Your task to perform on an android device: Search for custom made wallets on etsy.com Image 0: 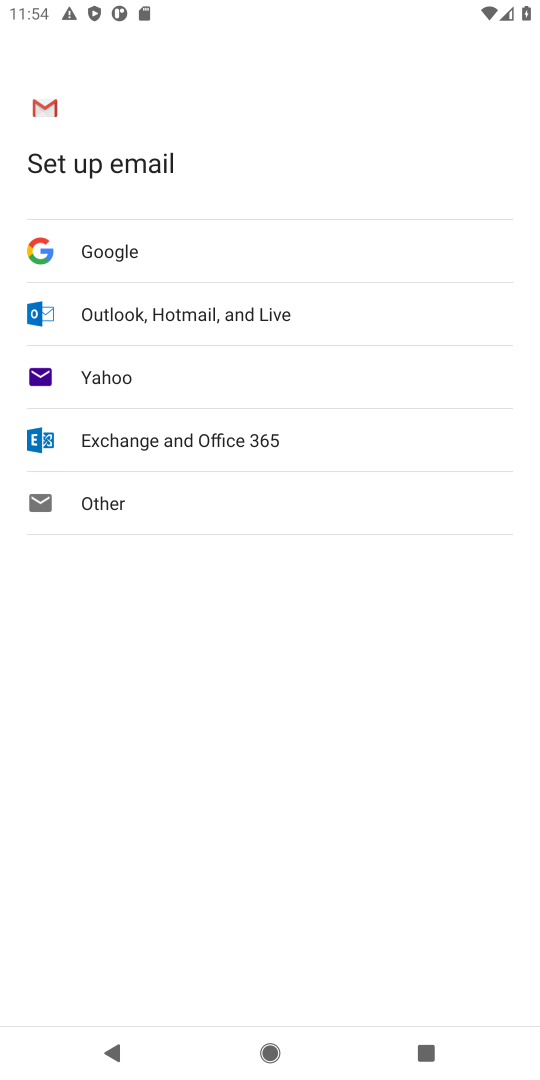
Step 0: press home button
Your task to perform on an android device: Search for custom made wallets on etsy.com Image 1: 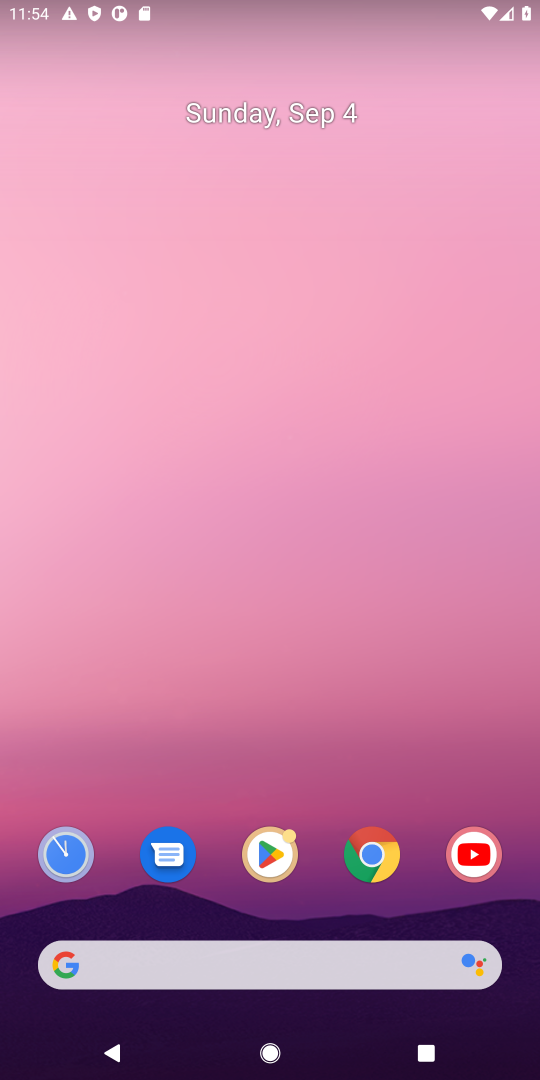
Step 1: click (343, 963)
Your task to perform on an android device: Search for custom made wallets on etsy.com Image 2: 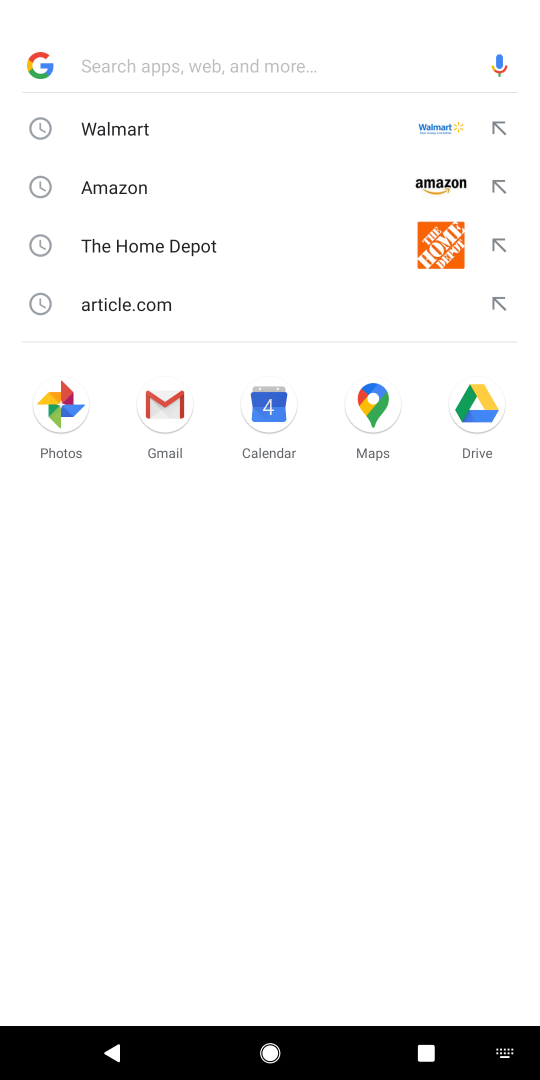
Step 2: press enter
Your task to perform on an android device: Search for custom made wallets on etsy.com Image 3: 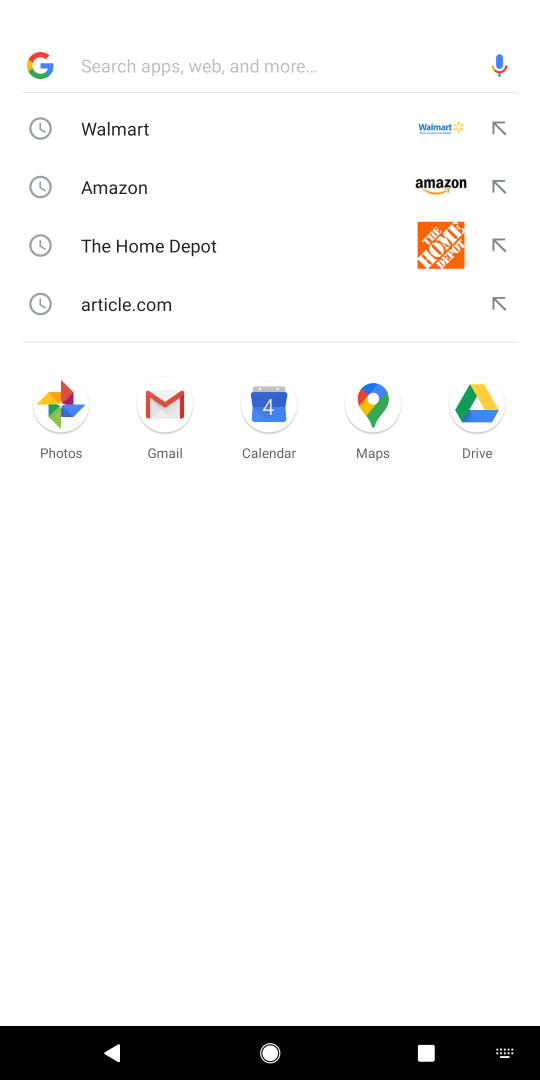
Step 3: type "etsy.com"
Your task to perform on an android device: Search for custom made wallets on etsy.com Image 4: 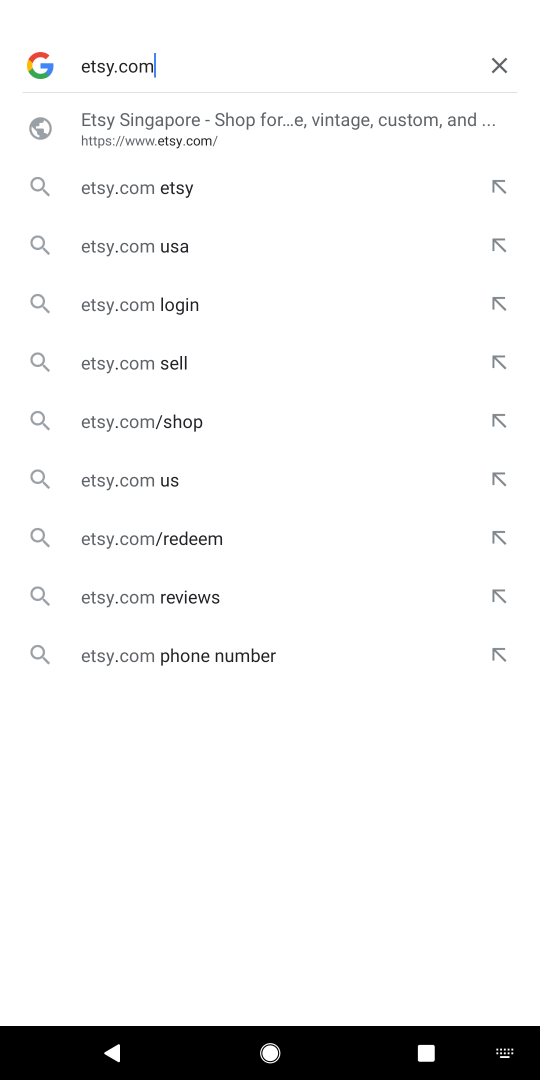
Step 4: click (220, 125)
Your task to perform on an android device: Search for custom made wallets on etsy.com Image 5: 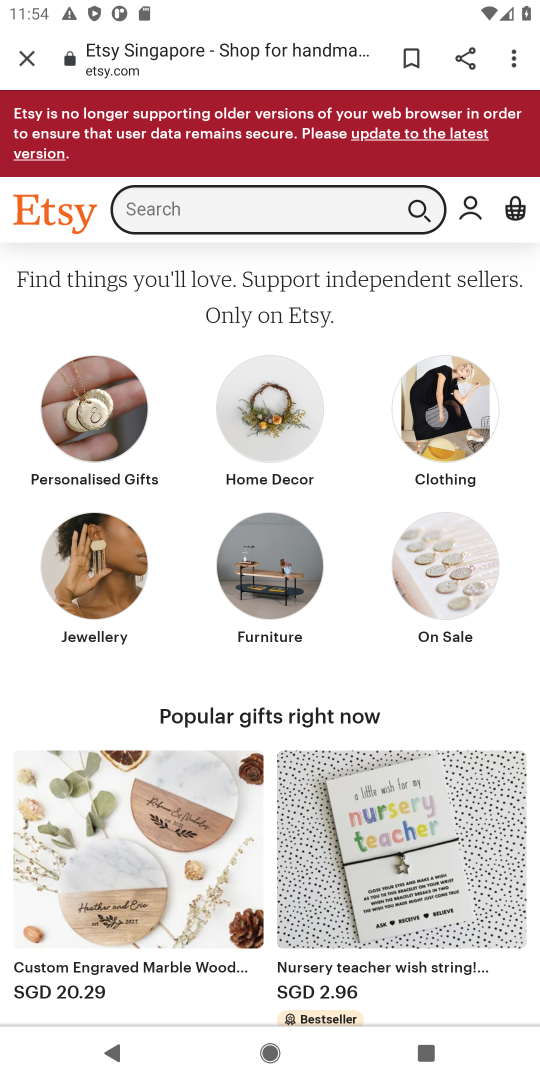
Step 5: click (243, 196)
Your task to perform on an android device: Search for custom made wallets on etsy.com Image 6: 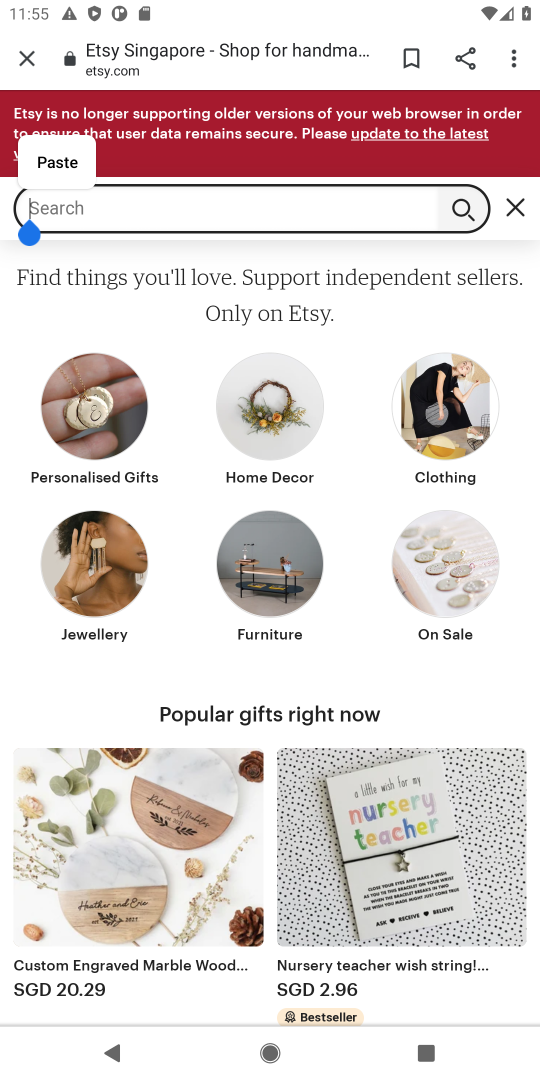
Step 6: type "custom made wallets"
Your task to perform on an android device: Search for custom made wallets on etsy.com Image 7: 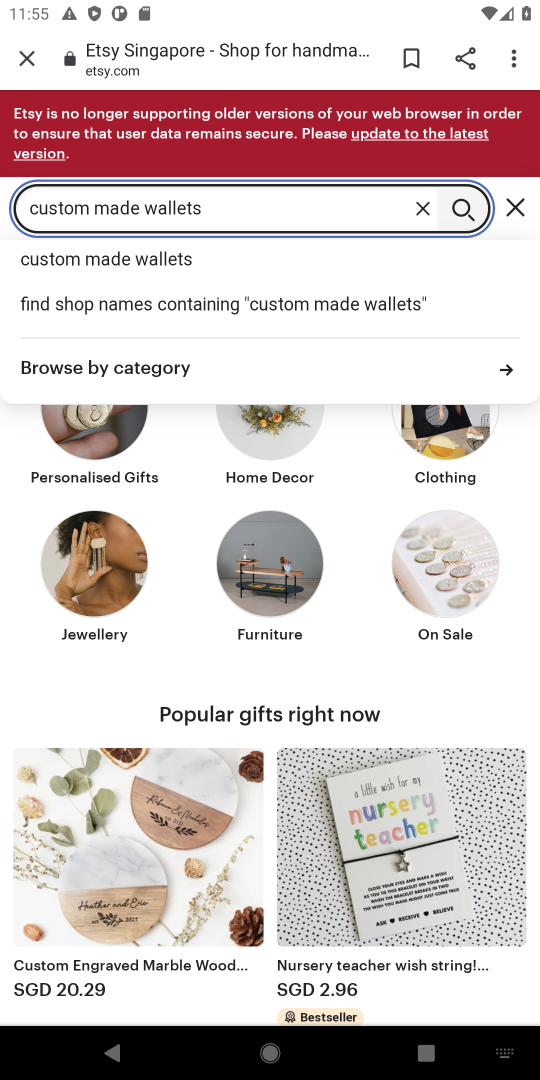
Step 7: click (184, 258)
Your task to perform on an android device: Search for custom made wallets on etsy.com Image 8: 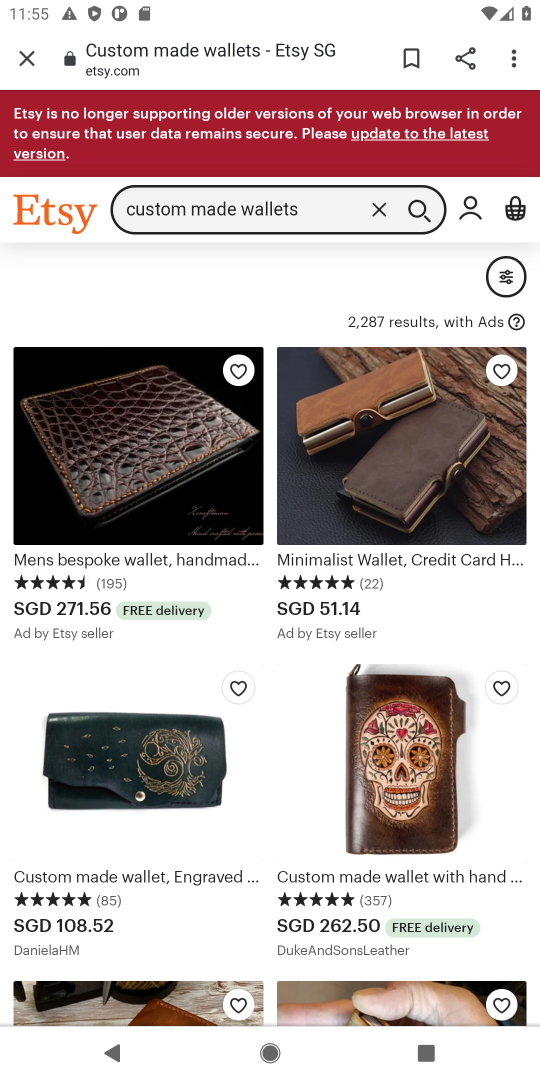
Step 8: task complete